Your task to perform on an android device: Search for 8K TVs on Best Buy. Image 0: 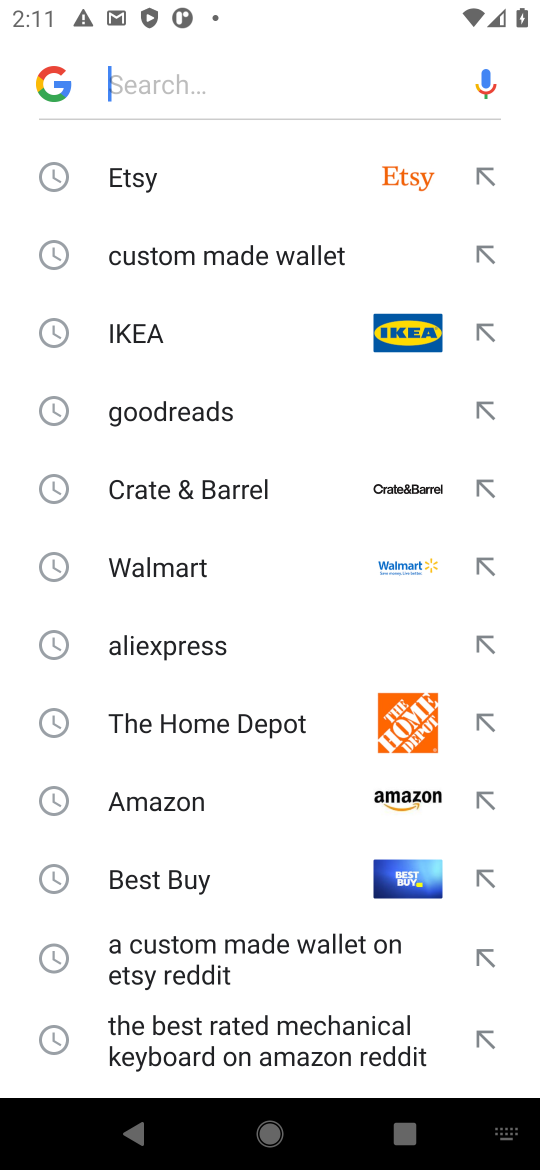
Step 0: press home button
Your task to perform on an android device: Search for 8K TVs on Best Buy. Image 1: 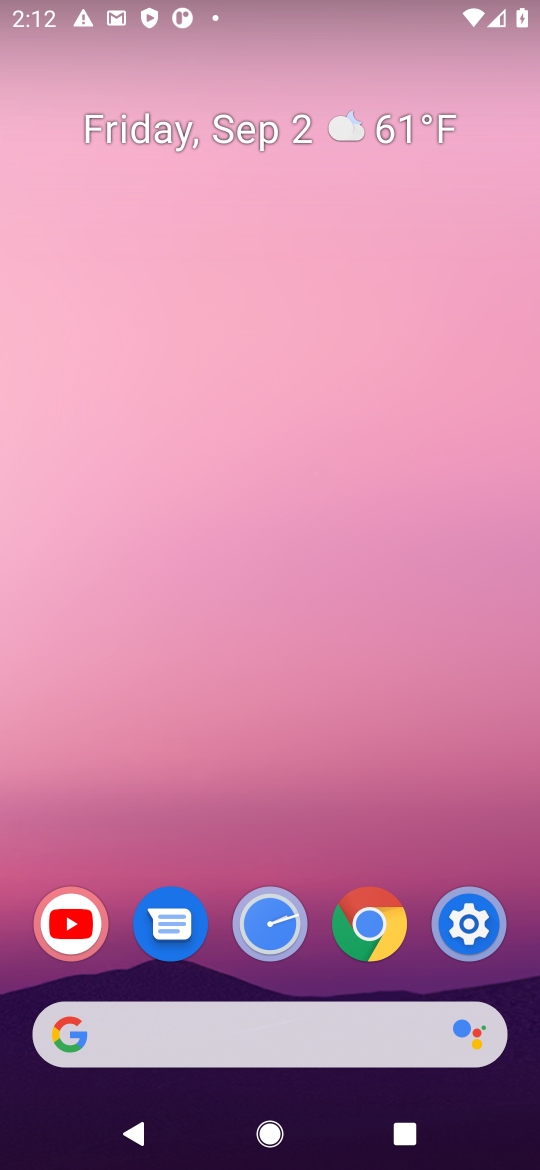
Step 1: click (334, 1040)
Your task to perform on an android device: Search for 8K TVs on Best Buy. Image 2: 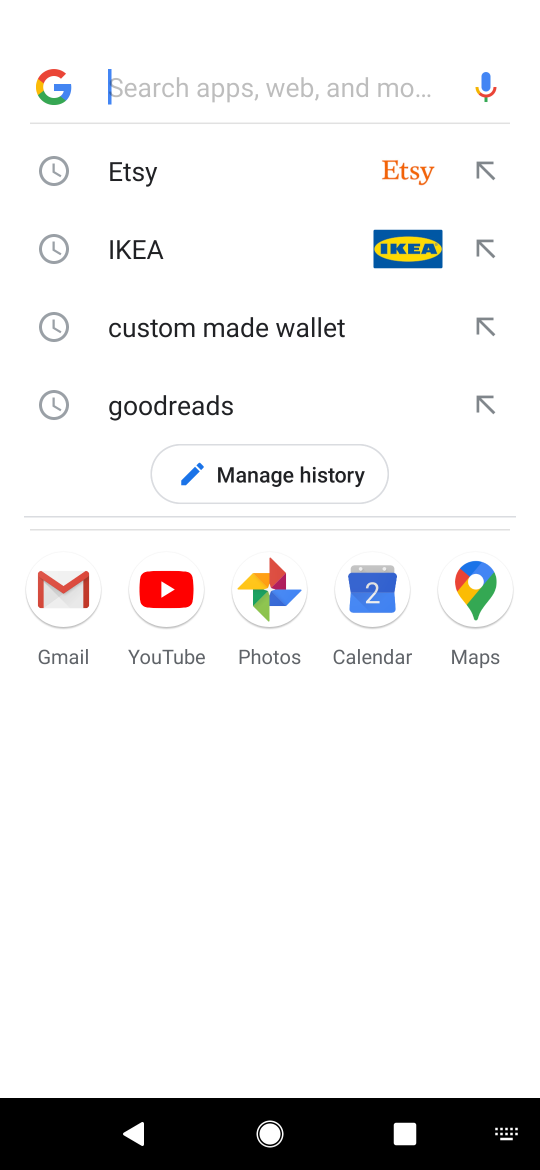
Step 2: press enter
Your task to perform on an android device: Search for 8K TVs on Best Buy. Image 3: 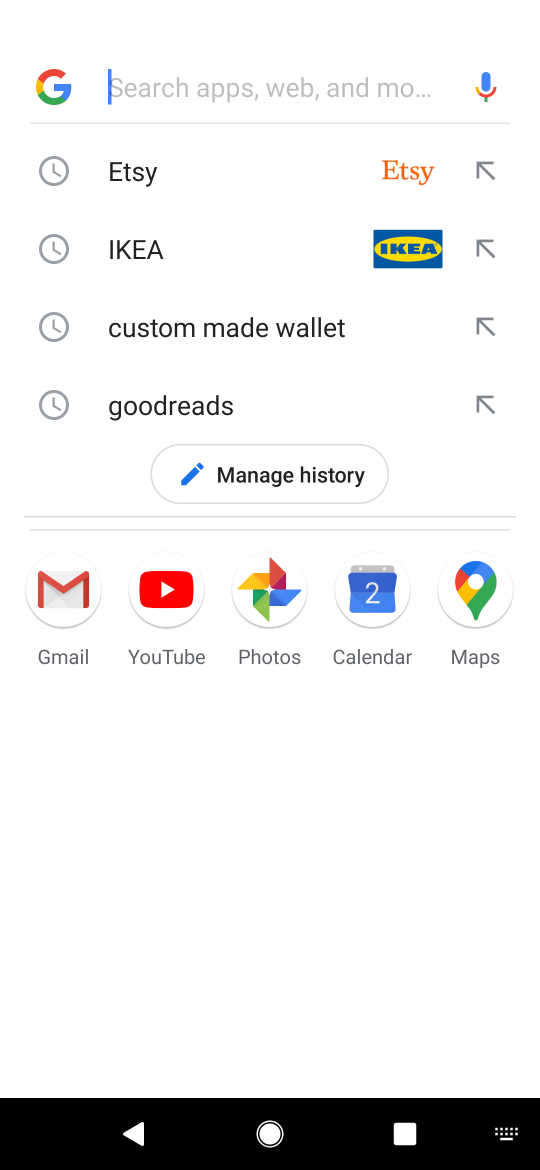
Step 3: type "best buy"
Your task to perform on an android device: Search for 8K TVs on Best Buy. Image 4: 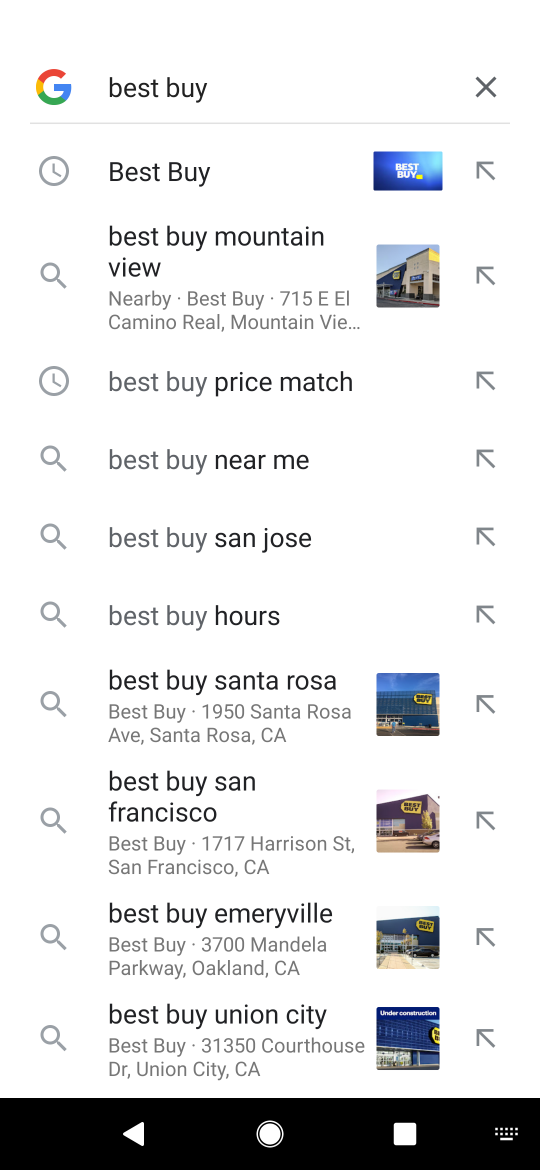
Step 4: click (229, 176)
Your task to perform on an android device: Search for 8K TVs on Best Buy. Image 5: 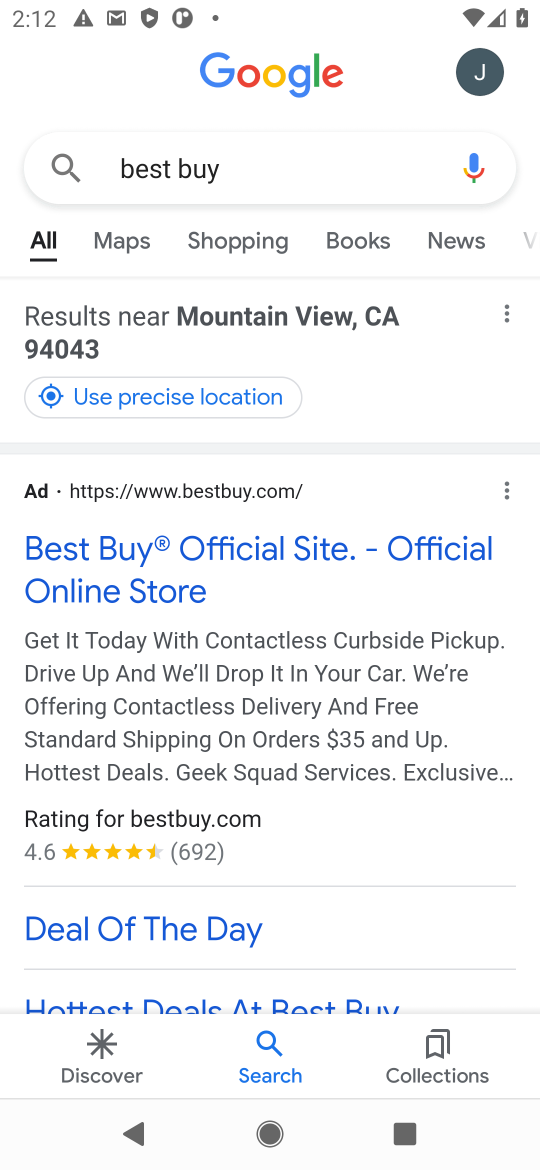
Step 5: click (279, 550)
Your task to perform on an android device: Search for 8K TVs on Best Buy. Image 6: 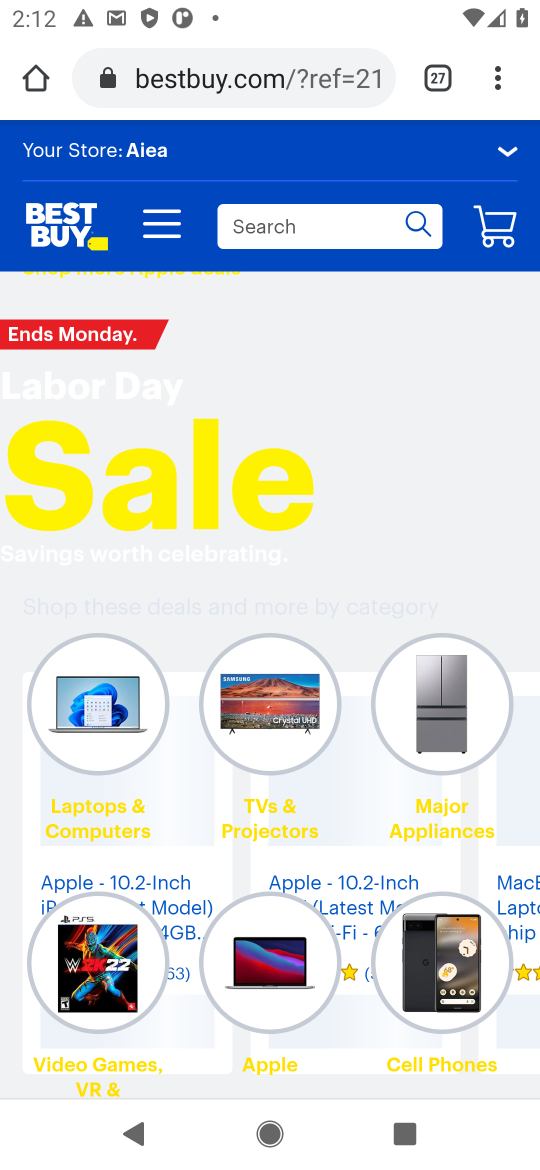
Step 6: click (294, 223)
Your task to perform on an android device: Search for 8K TVs on Best Buy. Image 7: 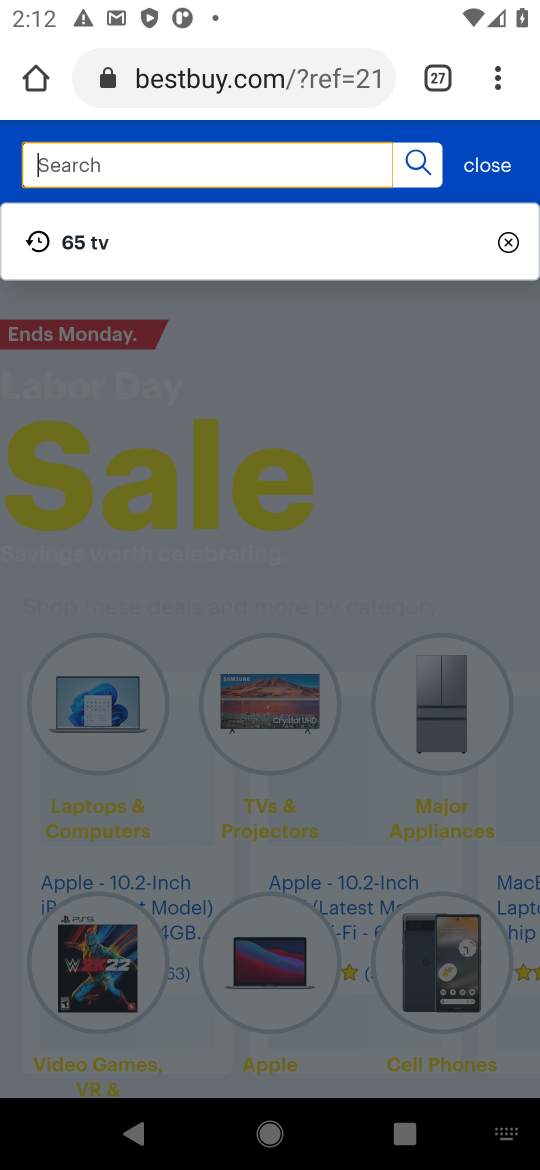
Step 7: type "8k tvs"
Your task to perform on an android device: Search for 8K TVs on Best Buy. Image 8: 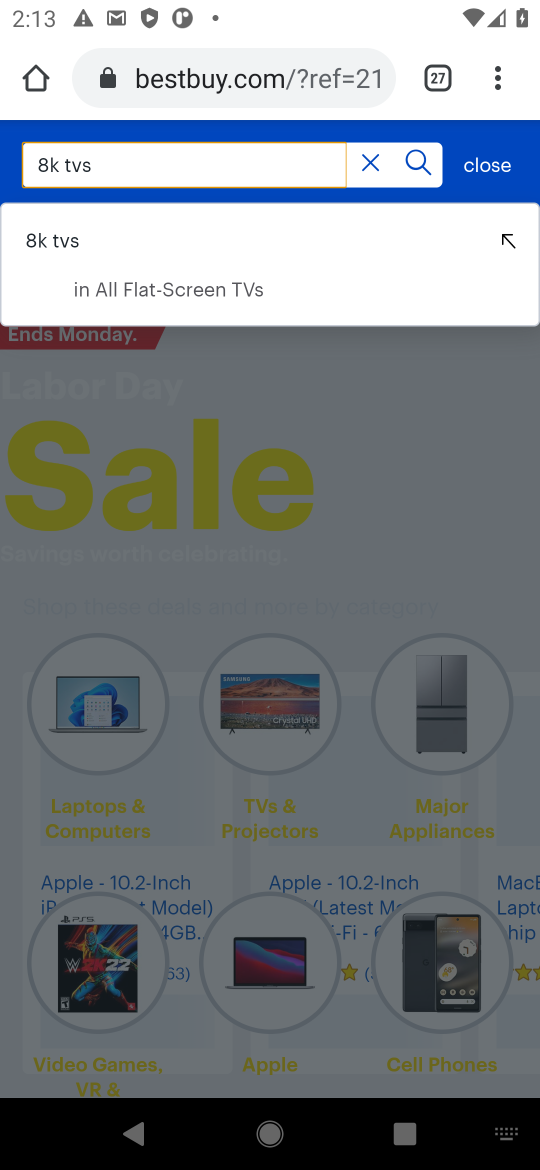
Step 8: click (87, 237)
Your task to perform on an android device: Search for 8K TVs on Best Buy. Image 9: 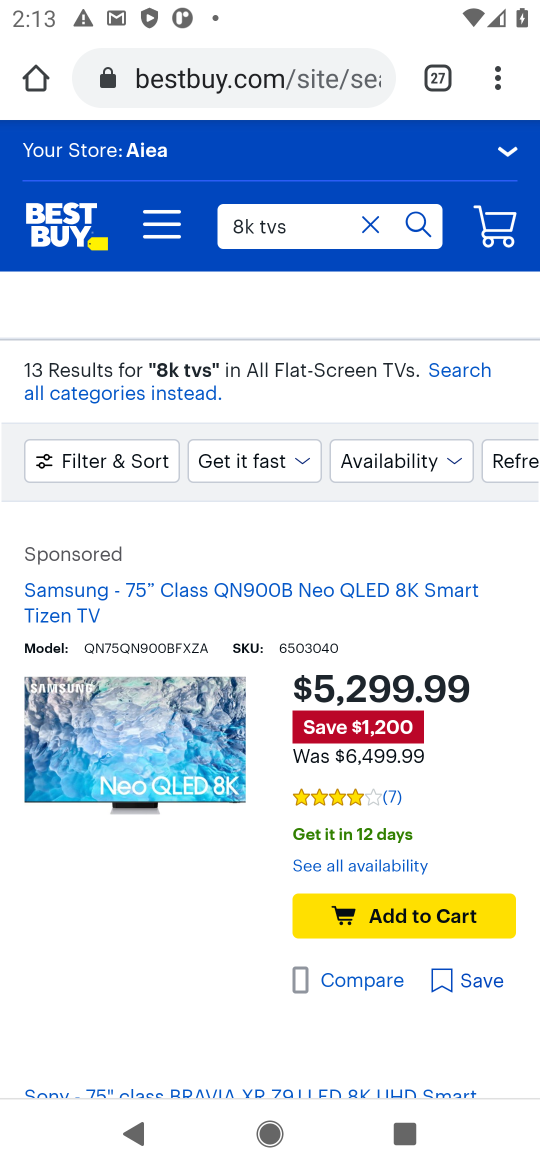
Step 9: task complete